Your task to perform on an android device: clear history in the chrome app Image 0: 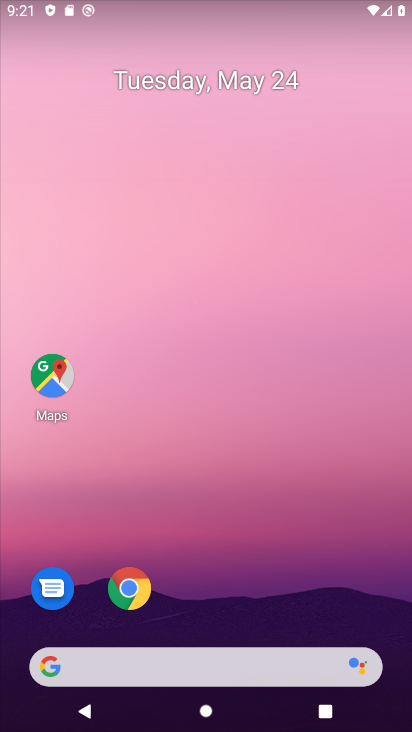
Step 0: click (132, 588)
Your task to perform on an android device: clear history in the chrome app Image 1: 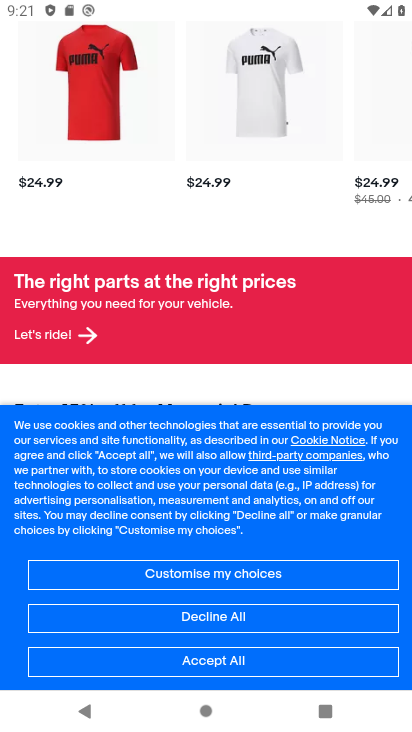
Step 1: drag from (321, 211) to (209, 731)
Your task to perform on an android device: clear history in the chrome app Image 2: 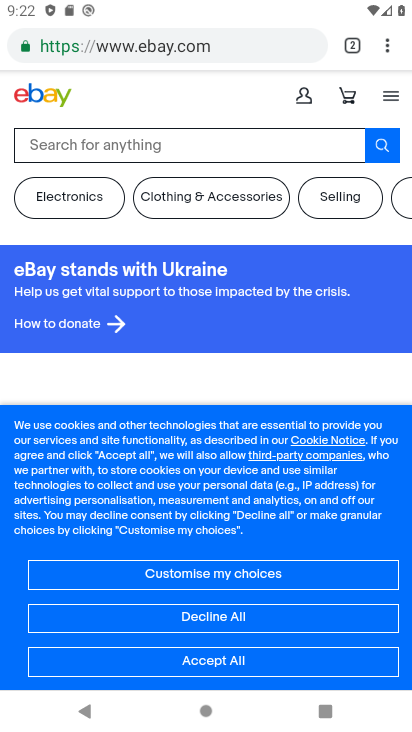
Step 2: drag from (388, 43) to (241, 255)
Your task to perform on an android device: clear history in the chrome app Image 3: 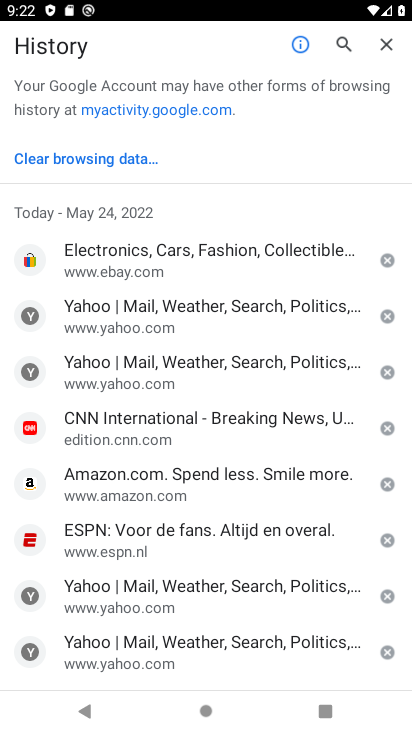
Step 3: click (93, 167)
Your task to perform on an android device: clear history in the chrome app Image 4: 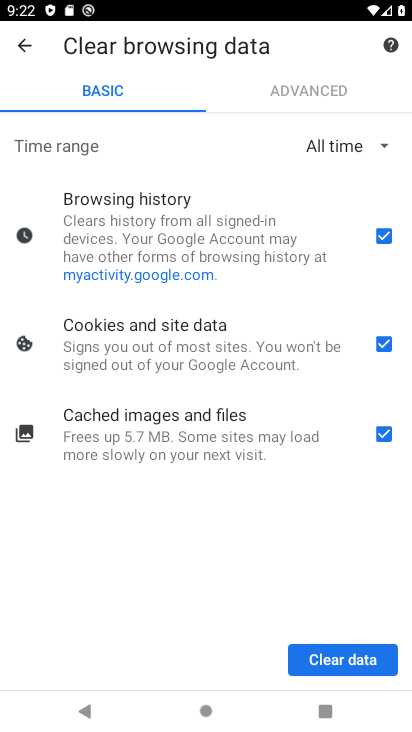
Step 4: click (320, 667)
Your task to perform on an android device: clear history in the chrome app Image 5: 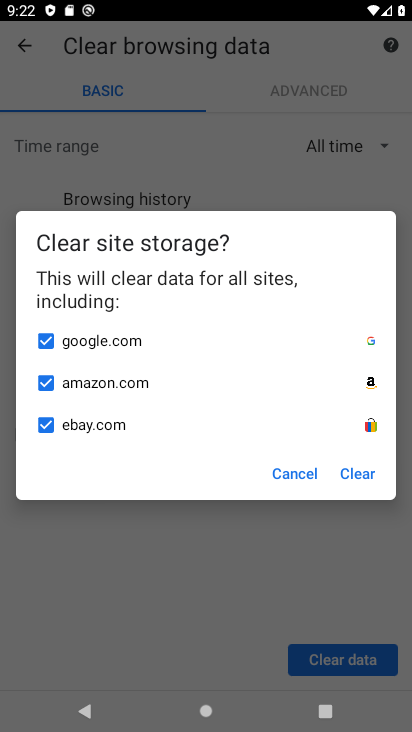
Step 5: click (369, 459)
Your task to perform on an android device: clear history in the chrome app Image 6: 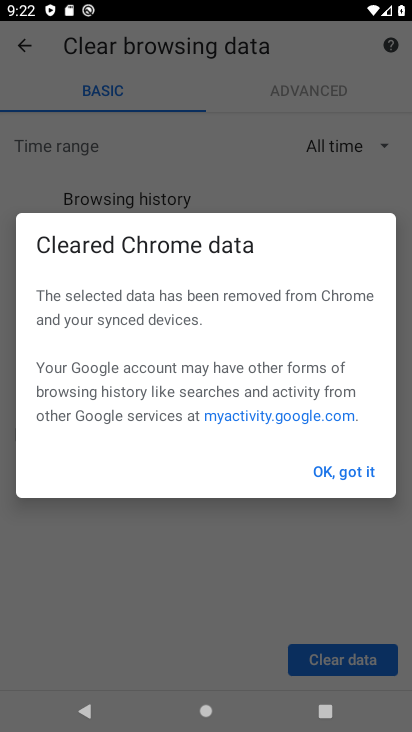
Step 6: click (366, 463)
Your task to perform on an android device: clear history in the chrome app Image 7: 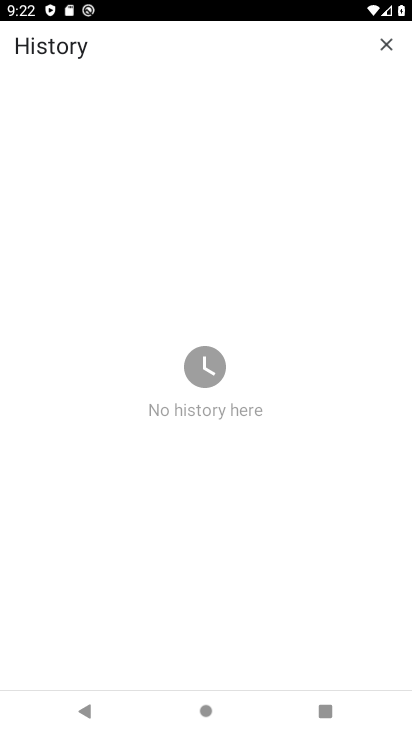
Step 7: task complete